Your task to perform on an android device: Show the shopping cart on newegg. Search for "razer kraken" on newegg, select the first entry, add it to the cart, then select checkout. Image 0: 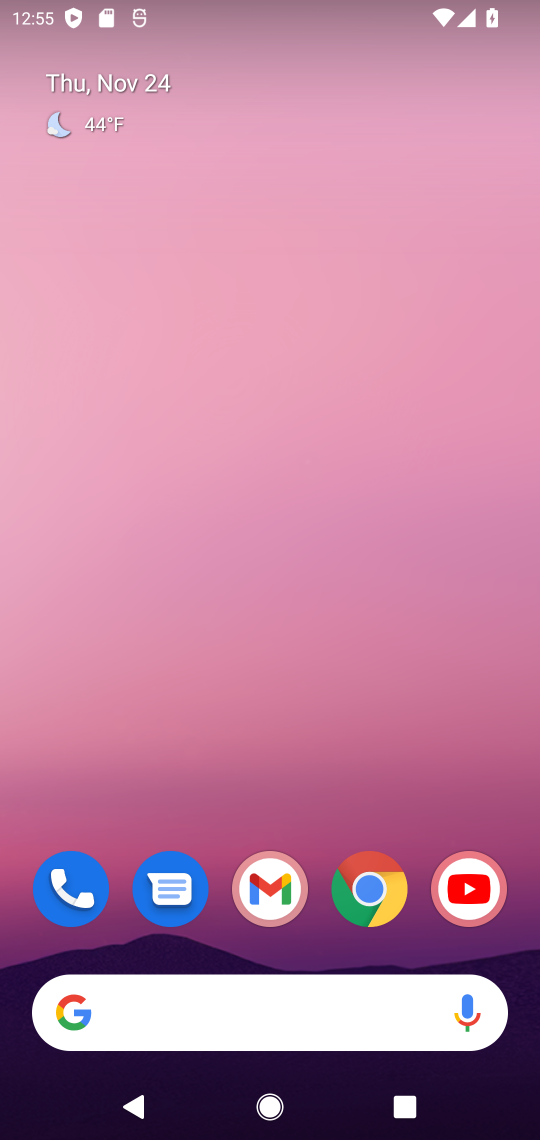
Step 0: click (377, 896)
Your task to perform on an android device: Show the shopping cart on newegg. Search for "razer kraken" on newegg, select the first entry, add it to the cart, then select checkout. Image 1: 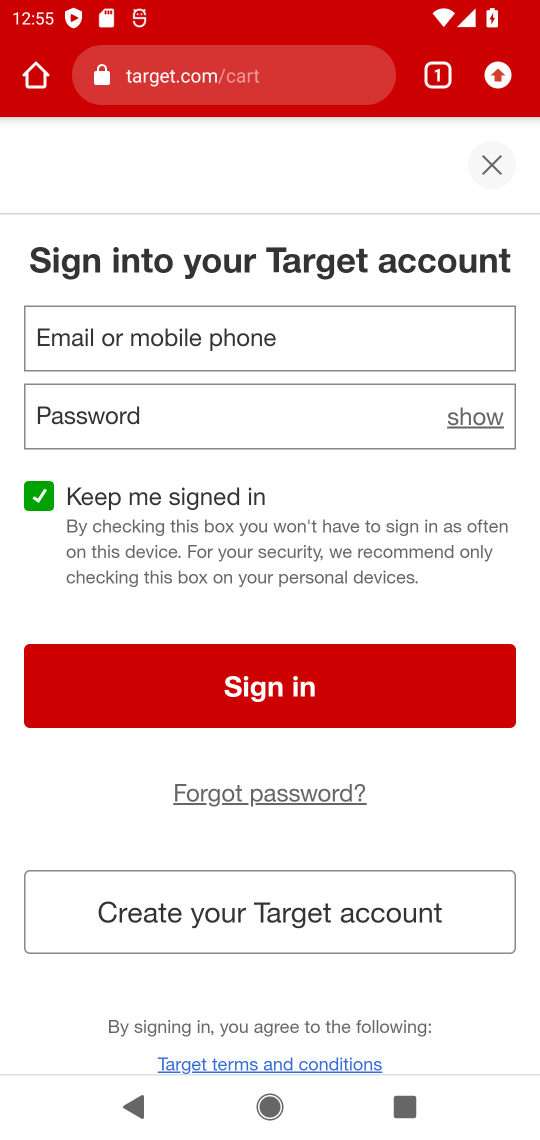
Step 1: click (213, 86)
Your task to perform on an android device: Show the shopping cart on newegg. Search for "razer kraken" on newegg, select the first entry, add it to the cart, then select checkout. Image 2: 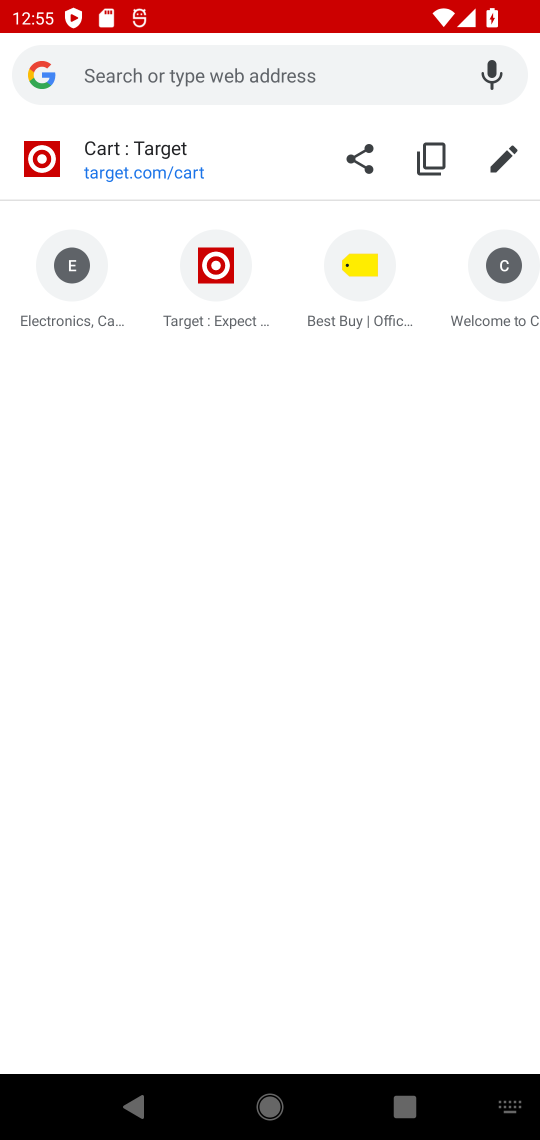
Step 2: type "newegg.com"
Your task to perform on an android device: Show the shopping cart on newegg. Search for "razer kraken" on newegg, select the first entry, add it to the cart, then select checkout. Image 3: 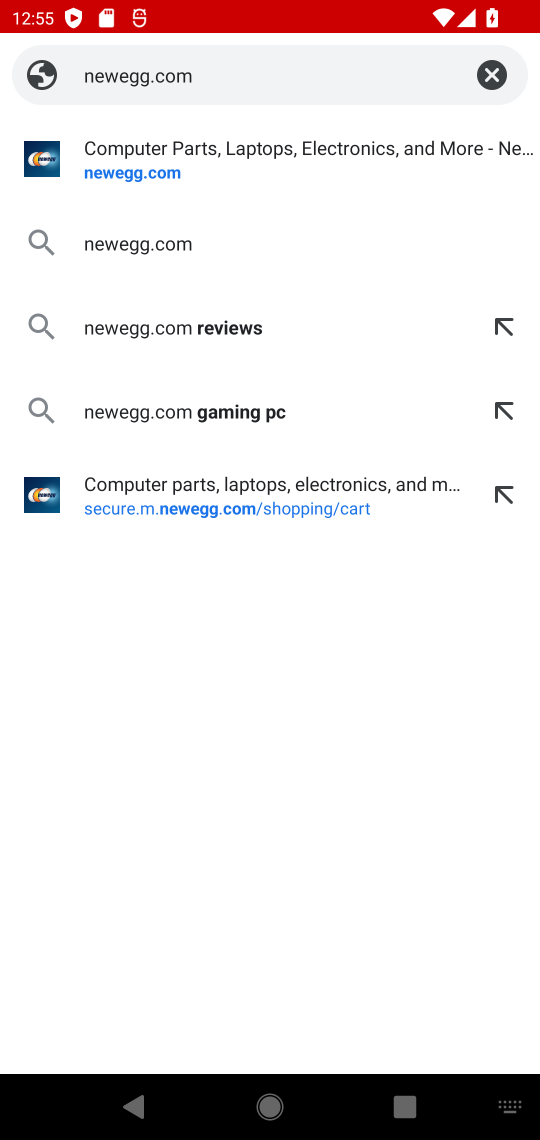
Step 3: click (103, 161)
Your task to perform on an android device: Show the shopping cart on newegg. Search for "razer kraken" on newegg, select the first entry, add it to the cart, then select checkout. Image 4: 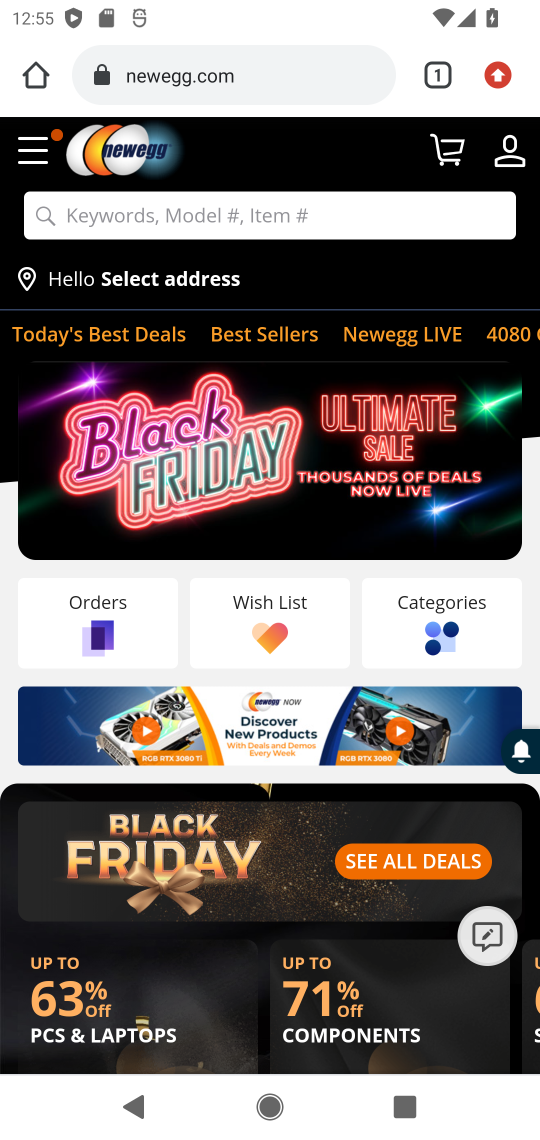
Step 4: click (444, 153)
Your task to perform on an android device: Show the shopping cart on newegg. Search for "razer kraken" on newegg, select the first entry, add it to the cart, then select checkout. Image 5: 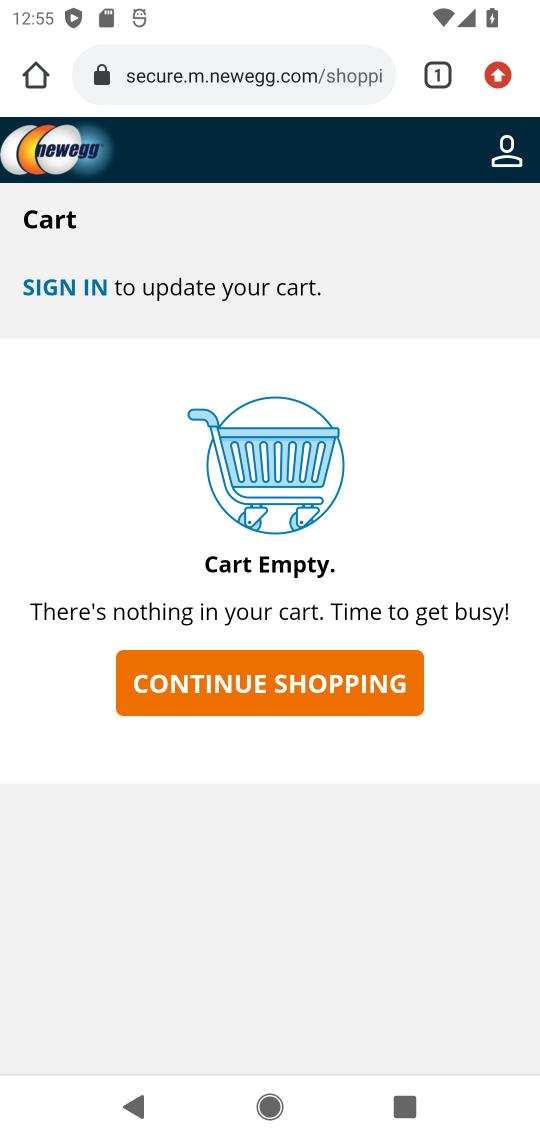
Step 5: click (287, 682)
Your task to perform on an android device: Show the shopping cart on newegg. Search for "razer kraken" on newegg, select the first entry, add it to the cart, then select checkout. Image 6: 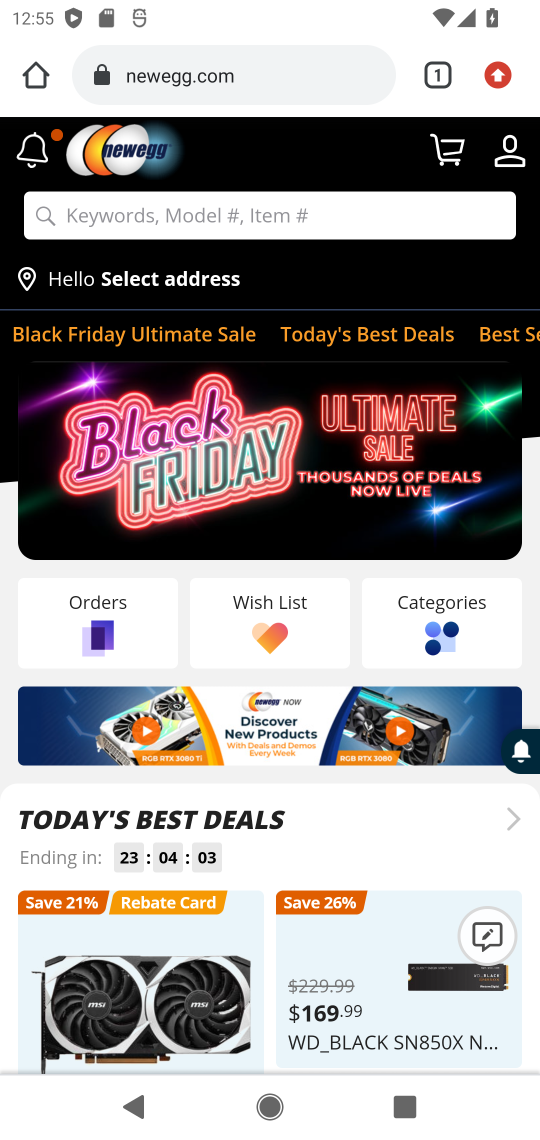
Step 6: click (176, 213)
Your task to perform on an android device: Show the shopping cart on newegg. Search for "razer kraken" on newegg, select the first entry, add it to the cart, then select checkout. Image 7: 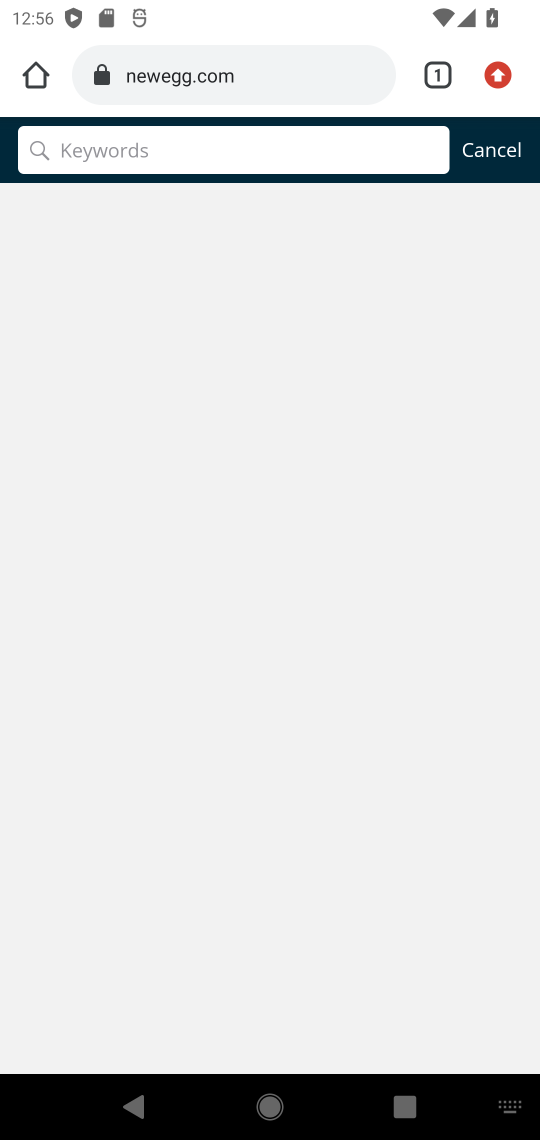
Step 7: type "razer kraken"
Your task to perform on an android device: Show the shopping cart on newegg. Search for "razer kraken" on newegg, select the first entry, add it to the cart, then select checkout. Image 8: 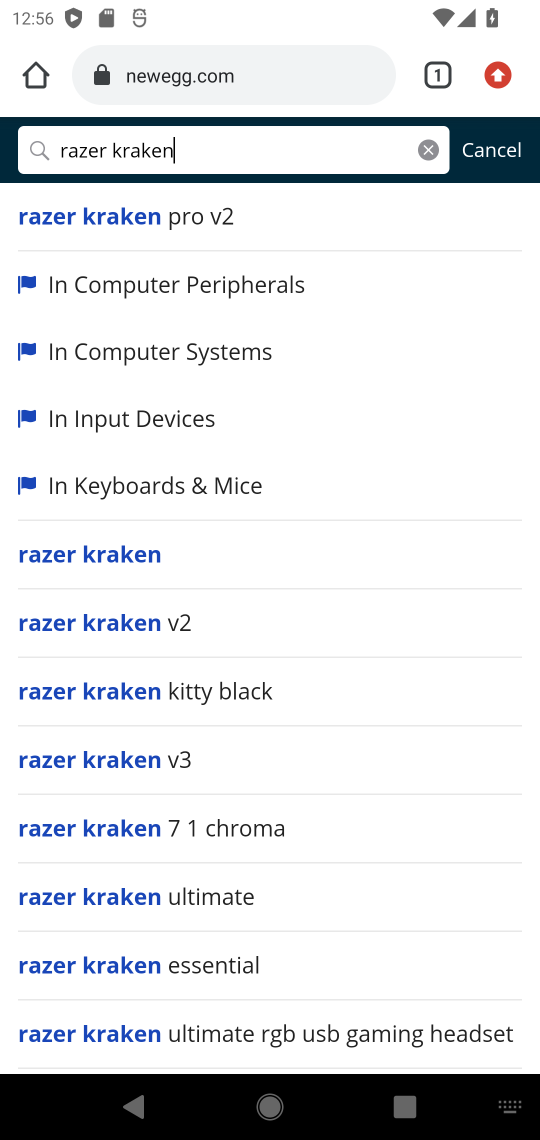
Step 8: click (66, 557)
Your task to perform on an android device: Show the shopping cart on newegg. Search for "razer kraken" on newegg, select the first entry, add it to the cart, then select checkout. Image 9: 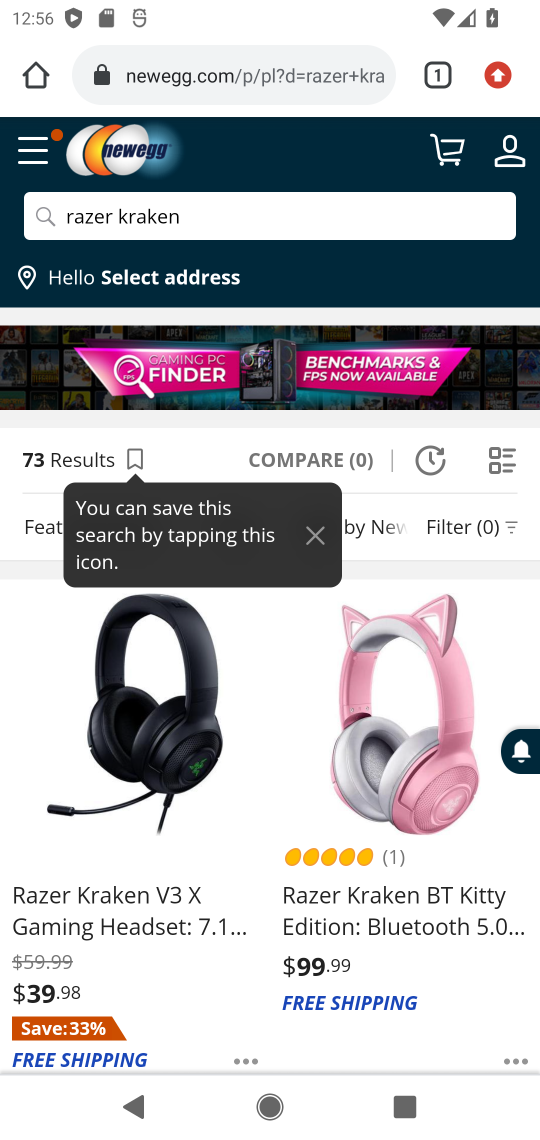
Step 9: click (130, 816)
Your task to perform on an android device: Show the shopping cart on newegg. Search for "razer kraken" on newegg, select the first entry, add it to the cart, then select checkout. Image 10: 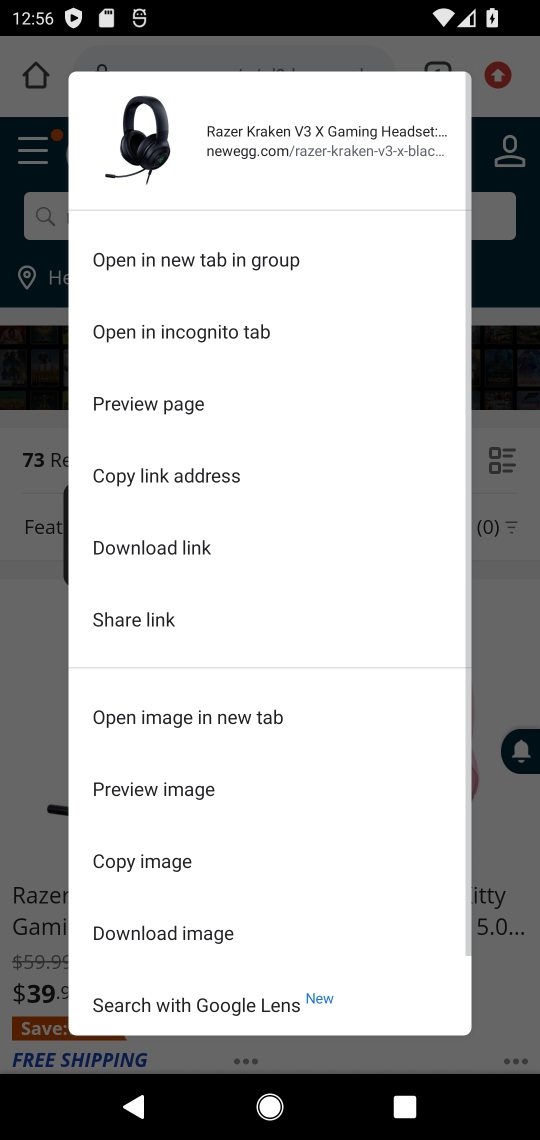
Step 10: click (38, 812)
Your task to perform on an android device: Show the shopping cart on newegg. Search for "razer kraken" on newegg, select the first entry, add it to the cart, then select checkout. Image 11: 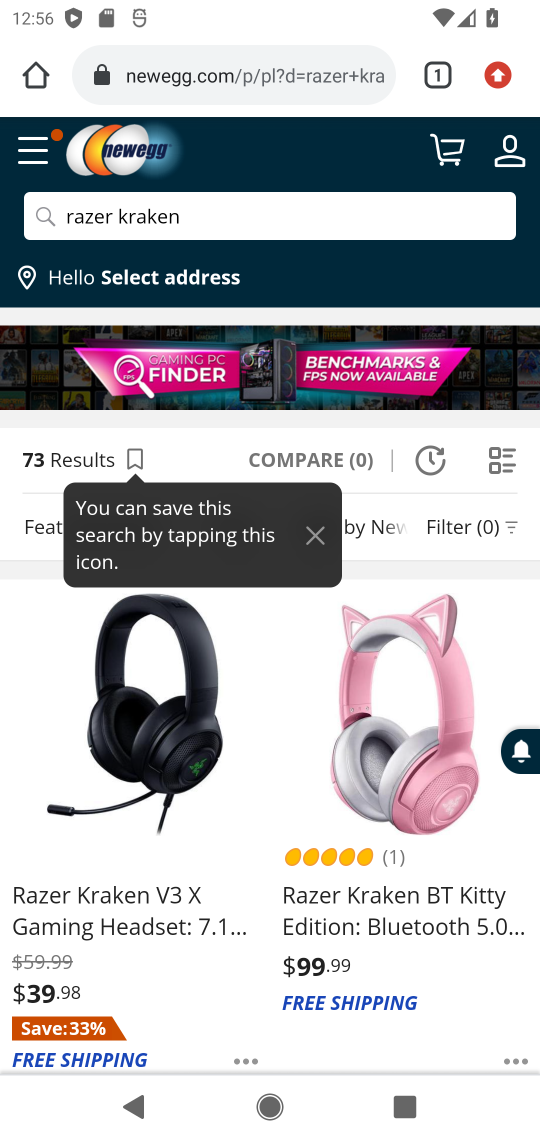
Step 11: click (131, 783)
Your task to perform on an android device: Show the shopping cart on newegg. Search for "razer kraken" on newegg, select the first entry, add it to the cart, then select checkout. Image 12: 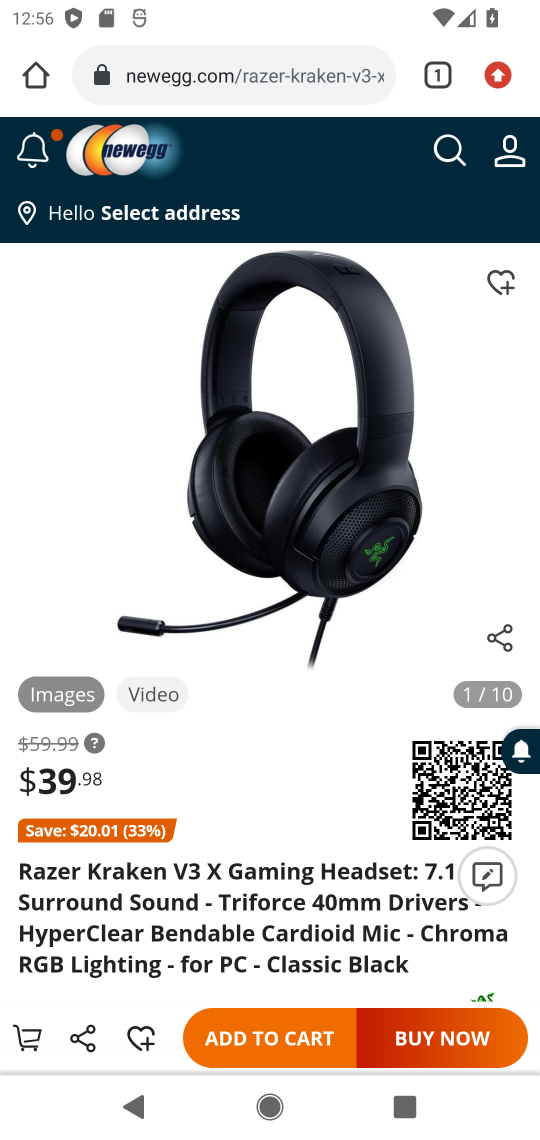
Step 12: click (269, 1033)
Your task to perform on an android device: Show the shopping cart on newegg. Search for "razer kraken" on newegg, select the first entry, add it to the cart, then select checkout. Image 13: 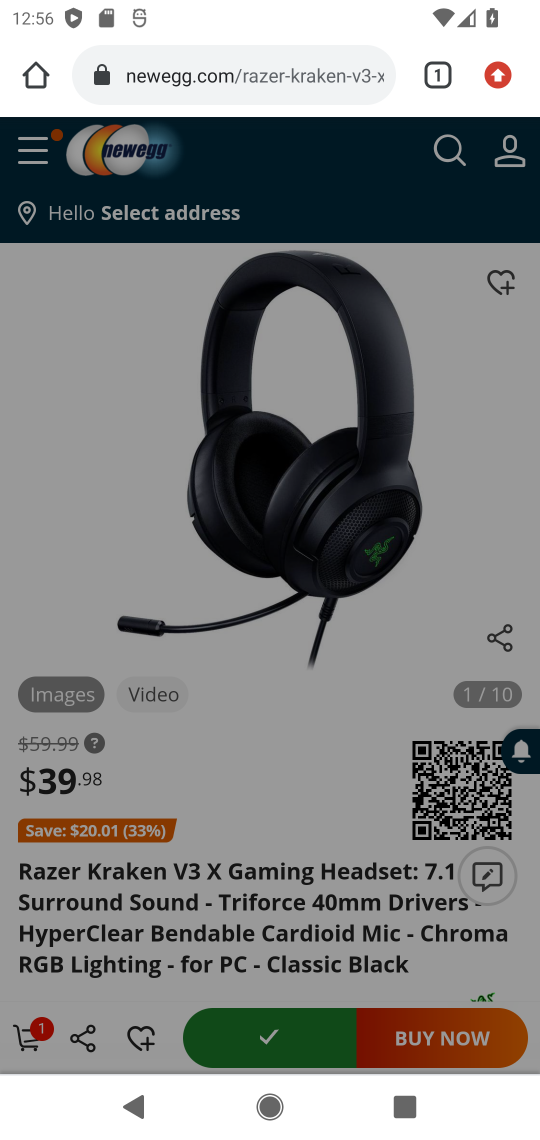
Step 13: click (29, 1033)
Your task to perform on an android device: Show the shopping cart on newegg. Search for "razer kraken" on newegg, select the first entry, add it to the cart, then select checkout. Image 14: 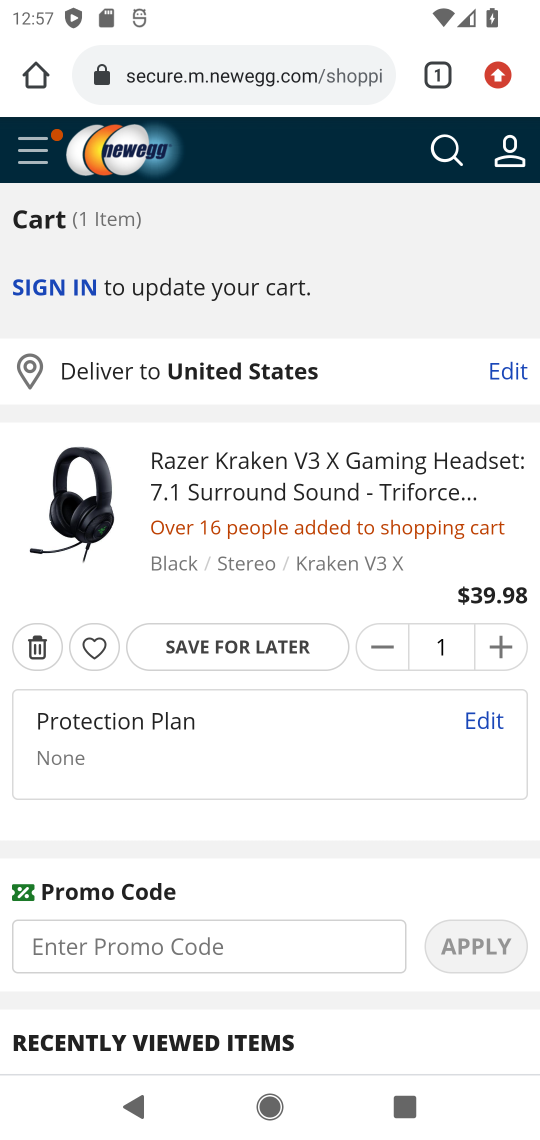
Step 14: drag from (267, 912) to (267, 769)
Your task to perform on an android device: Show the shopping cart on newegg. Search for "razer kraken" on newegg, select the first entry, add it to the cart, then select checkout. Image 15: 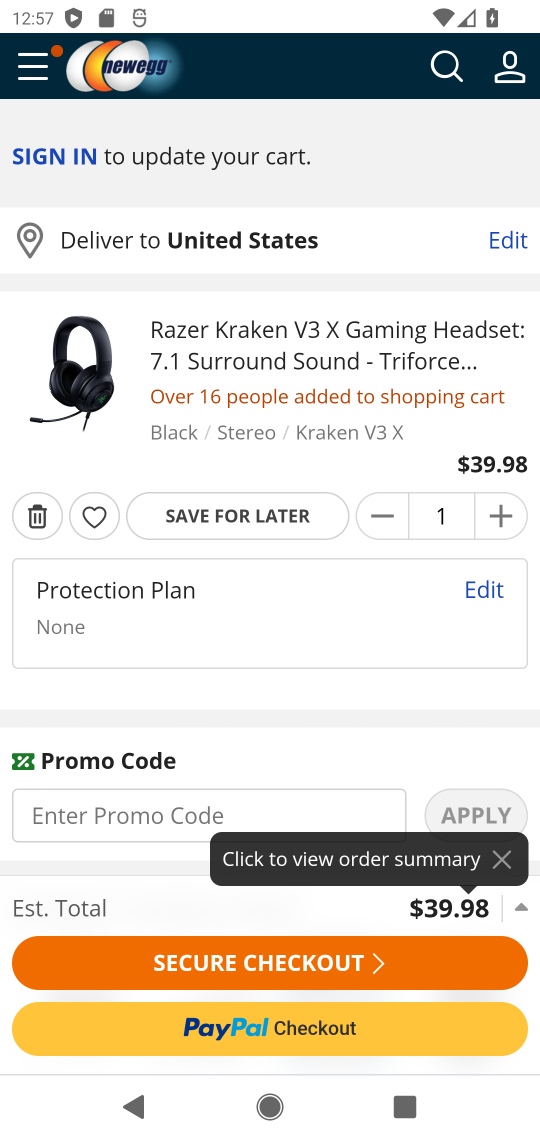
Step 15: click (255, 949)
Your task to perform on an android device: Show the shopping cart on newegg. Search for "razer kraken" on newegg, select the first entry, add it to the cart, then select checkout. Image 16: 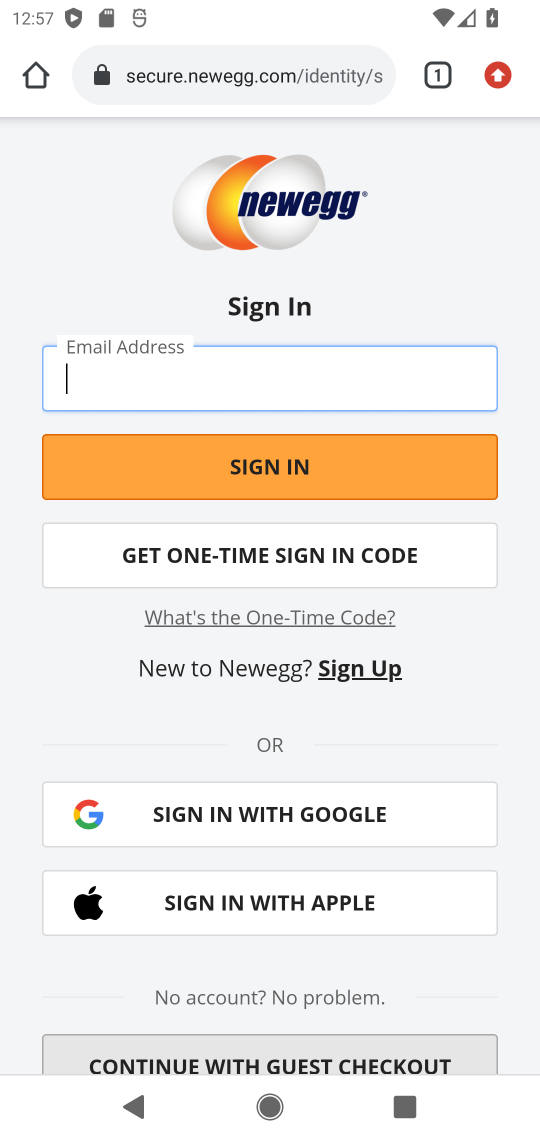
Step 16: task complete